Your task to perform on an android device: change timer sound Image 0: 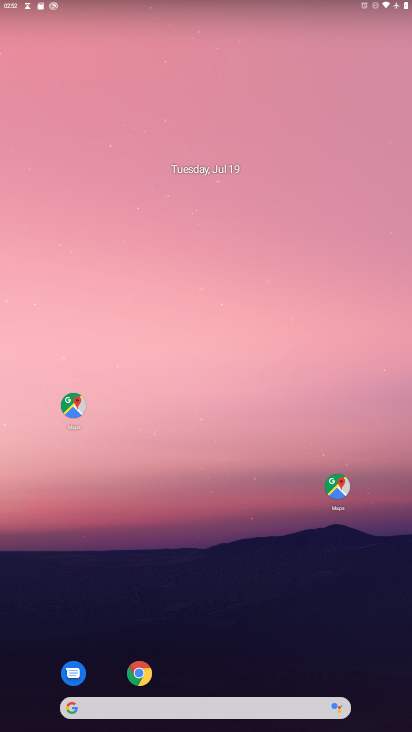
Step 0: drag from (264, 606) to (282, 342)
Your task to perform on an android device: change timer sound Image 1: 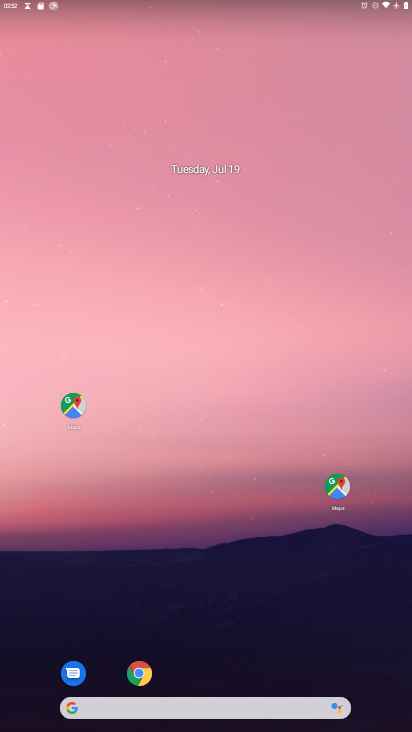
Step 1: drag from (200, 503) to (268, 9)
Your task to perform on an android device: change timer sound Image 2: 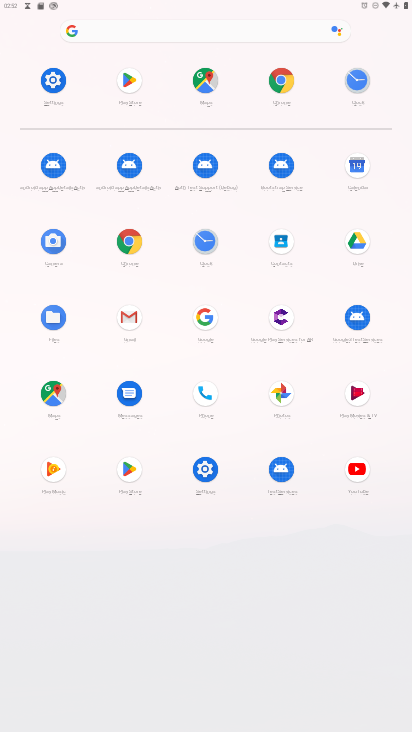
Step 2: click (198, 238)
Your task to perform on an android device: change timer sound Image 3: 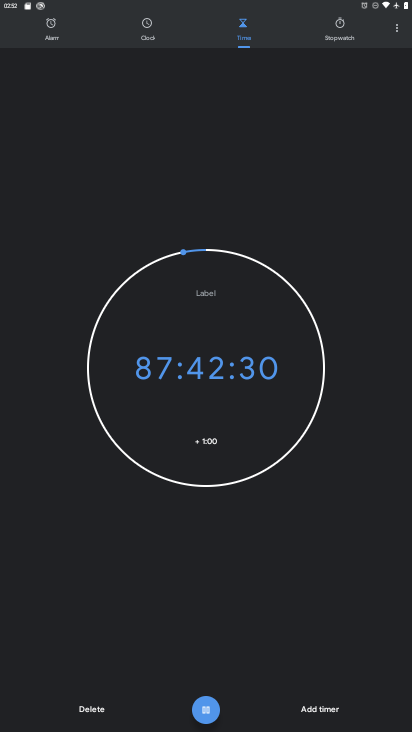
Step 3: click (399, 27)
Your task to perform on an android device: change timer sound Image 4: 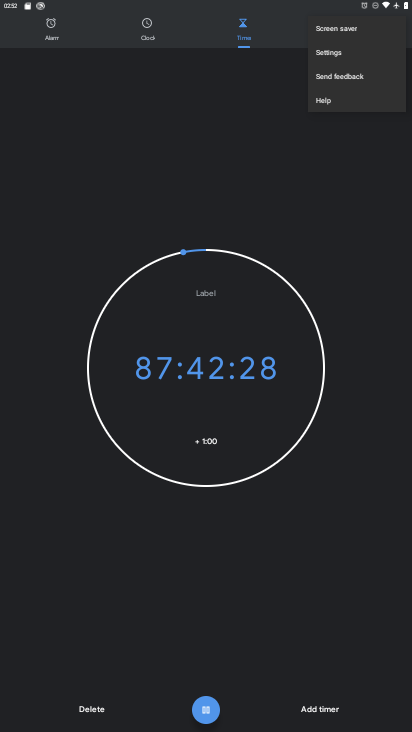
Step 4: click (335, 58)
Your task to perform on an android device: change timer sound Image 5: 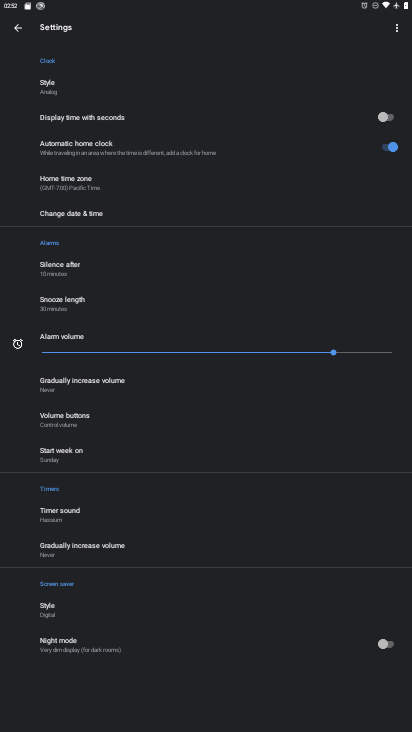
Step 5: click (90, 520)
Your task to perform on an android device: change timer sound Image 6: 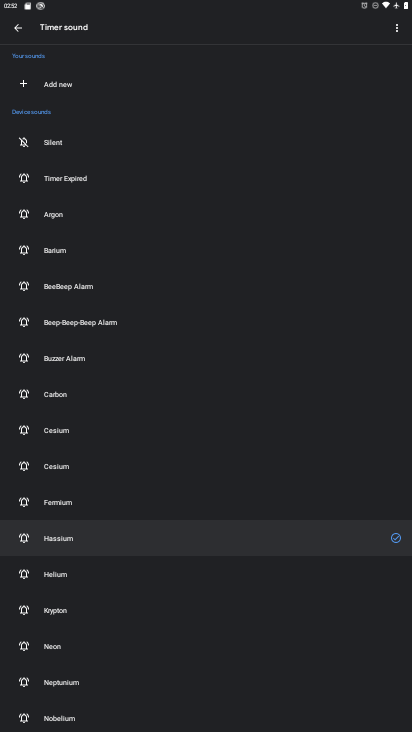
Step 6: click (97, 484)
Your task to perform on an android device: change timer sound Image 7: 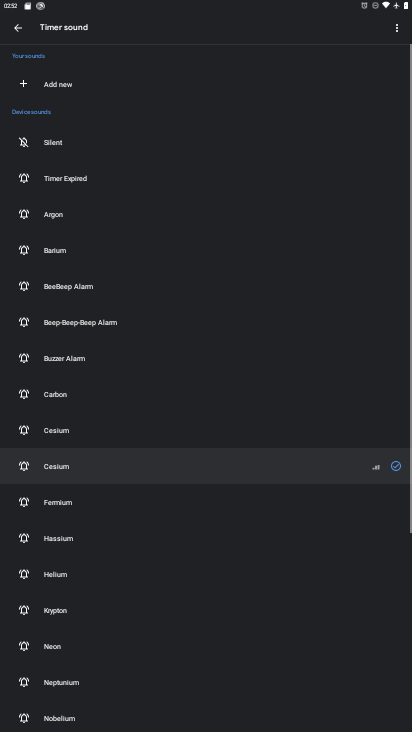
Step 7: task complete